Your task to perform on an android device: turn smart compose on in the gmail app Image 0: 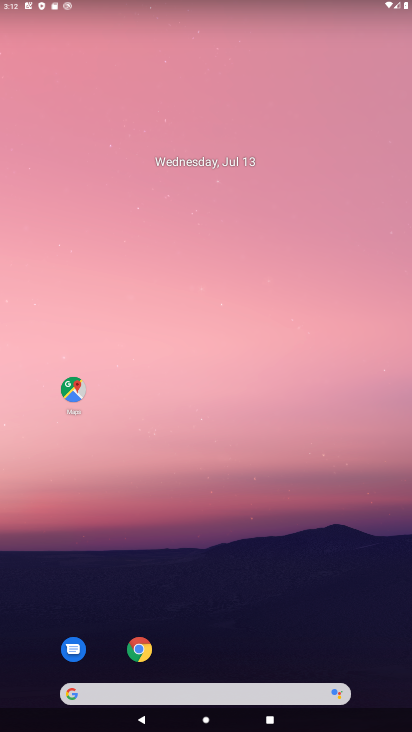
Step 0: drag from (250, 665) to (308, 239)
Your task to perform on an android device: turn smart compose on in the gmail app Image 1: 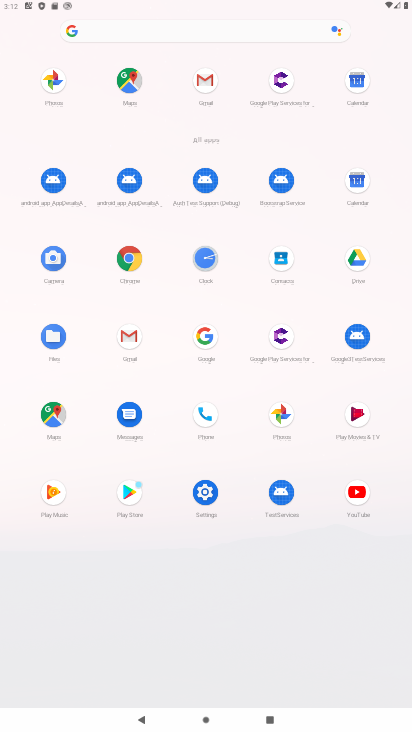
Step 1: click (132, 338)
Your task to perform on an android device: turn smart compose on in the gmail app Image 2: 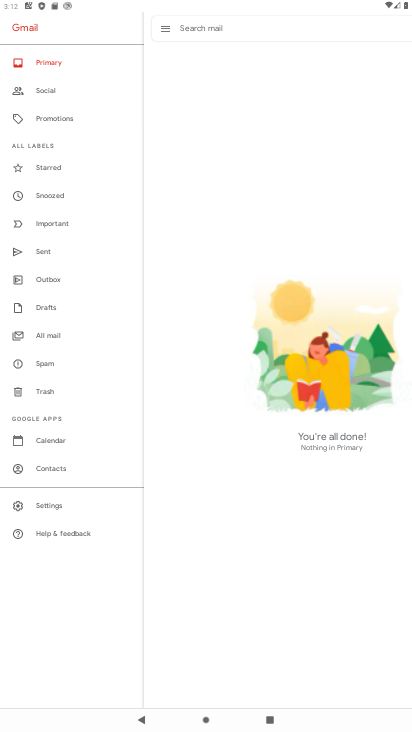
Step 2: click (84, 498)
Your task to perform on an android device: turn smart compose on in the gmail app Image 3: 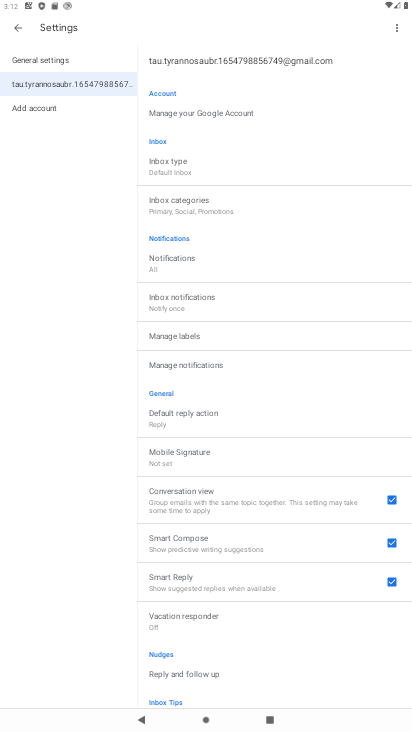
Step 3: task complete